Your task to perform on an android device: Is it going to rain this weekend? Image 0: 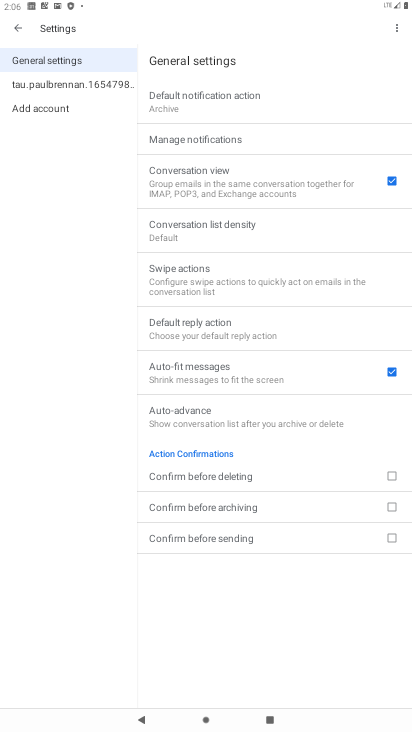
Step 0: press home button
Your task to perform on an android device: Is it going to rain this weekend? Image 1: 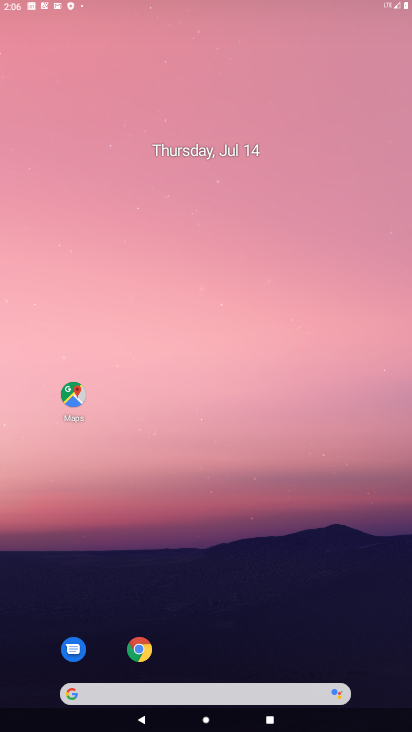
Step 1: drag from (361, 642) to (241, 0)
Your task to perform on an android device: Is it going to rain this weekend? Image 2: 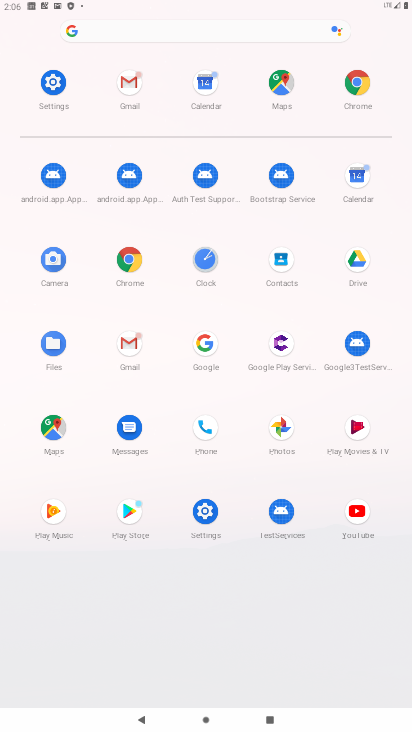
Step 2: click (203, 337)
Your task to perform on an android device: Is it going to rain this weekend? Image 3: 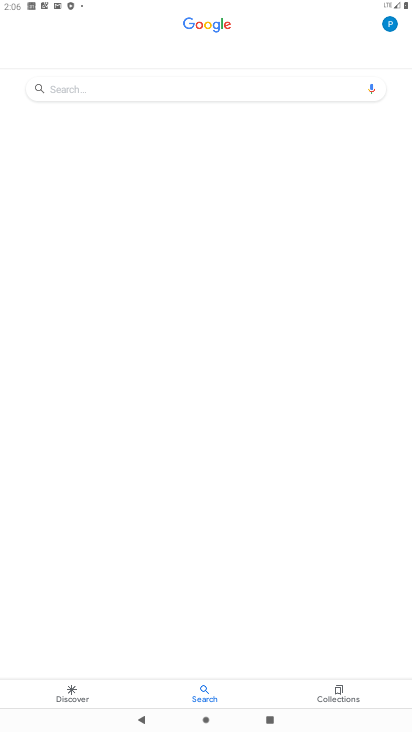
Step 3: click (112, 90)
Your task to perform on an android device: Is it going to rain this weekend? Image 4: 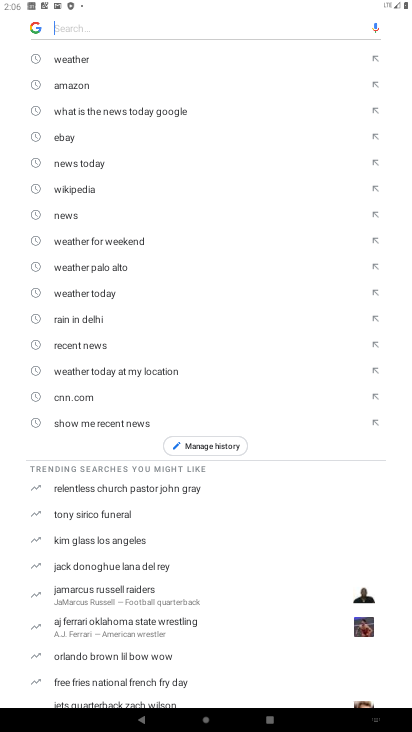
Step 4: click (363, 730)
Your task to perform on an android device: Is it going to rain this weekend? Image 5: 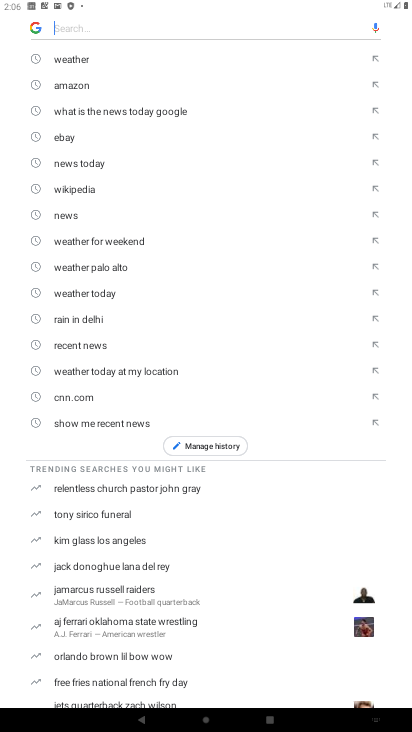
Step 5: type "Is it going to rain this weekend?"
Your task to perform on an android device: Is it going to rain this weekend? Image 6: 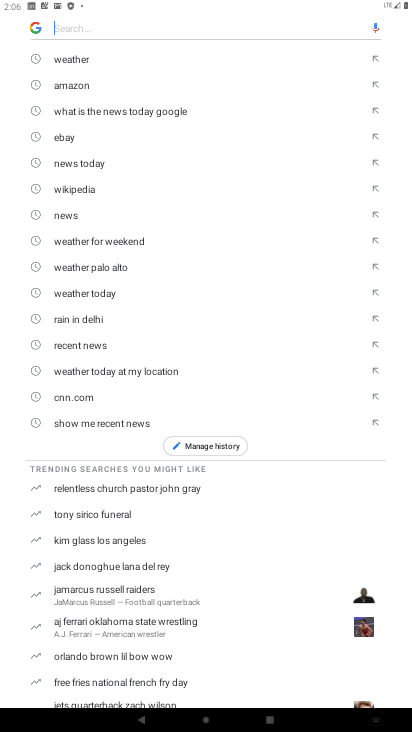
Step 6: click (410, 239)
Your task to perform on an android device: Is it going to rain this weekend? Image 7: 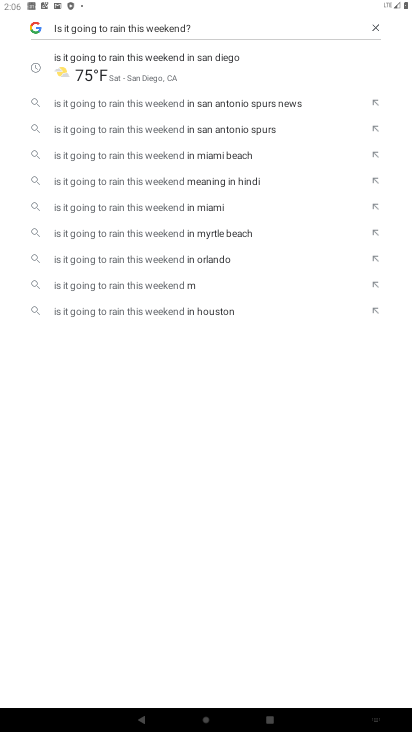
Step 7: click (123, 79)
Your task to perform on an android device: Is it going to rain this weekend? Image 8: 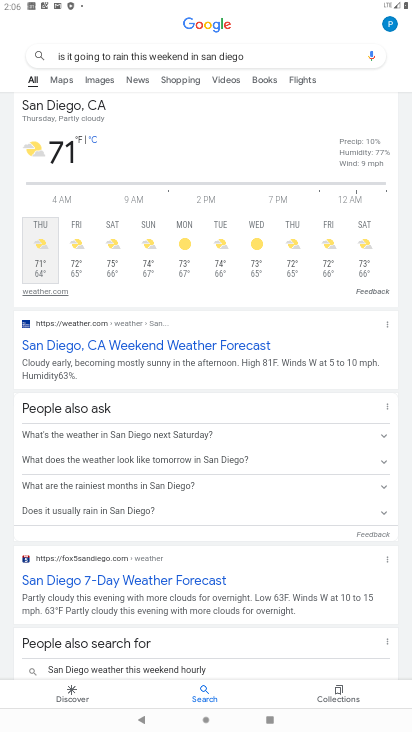
Step 8: task complete